Your task to perform on an android device: open a bookmark in the chrome app Image 0: 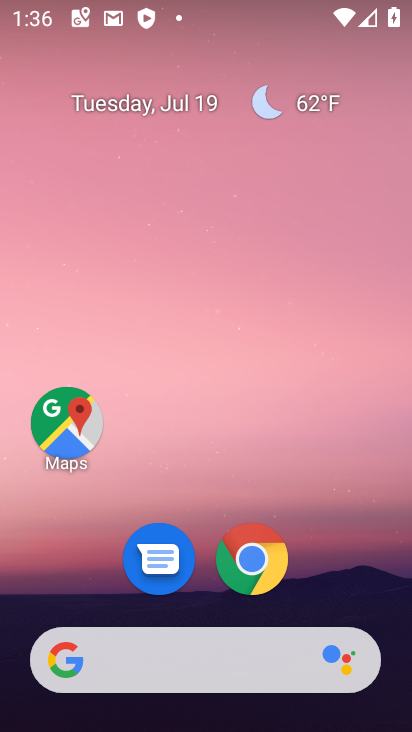
Step 0: drag from (276, 646) to (309, 142)
Your task to perform on an android device: open a bookmark in the chrome app Image 1: 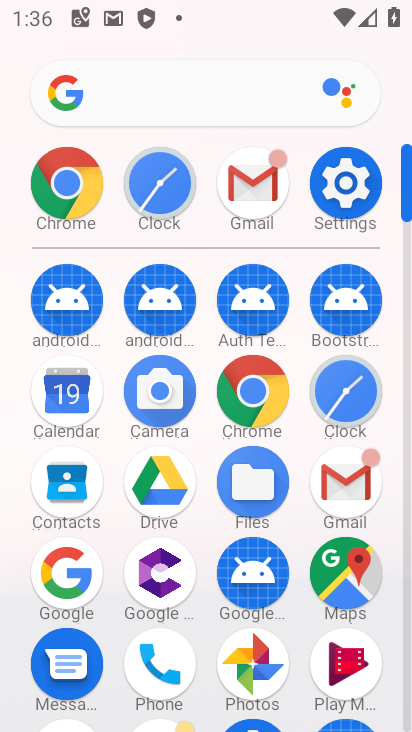
Step 1: click (272, 390)
Your task to perform on an android device: open a bookmark in the chrome app Image 2: 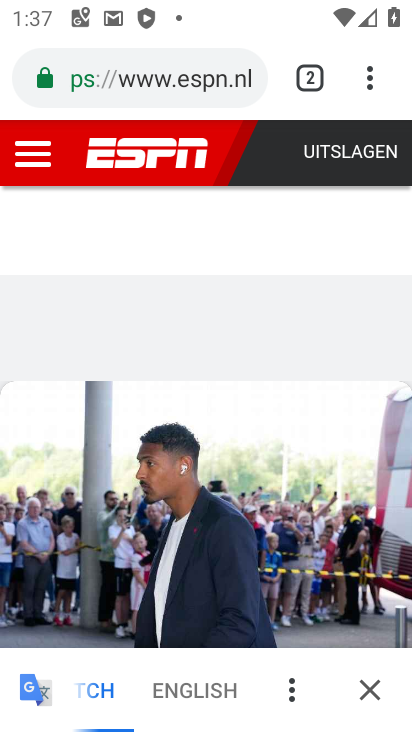
Step 2: click (364, 88)
Your task to perform on an android device: open a bookmark in the chrome app Image 3: 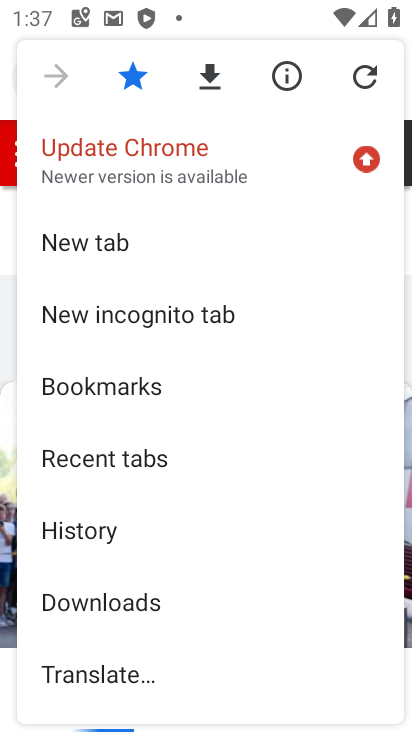
Step 3: click (127, 388)
Your task to perform on an android device: open a bookmark in the chrome app Image 4: 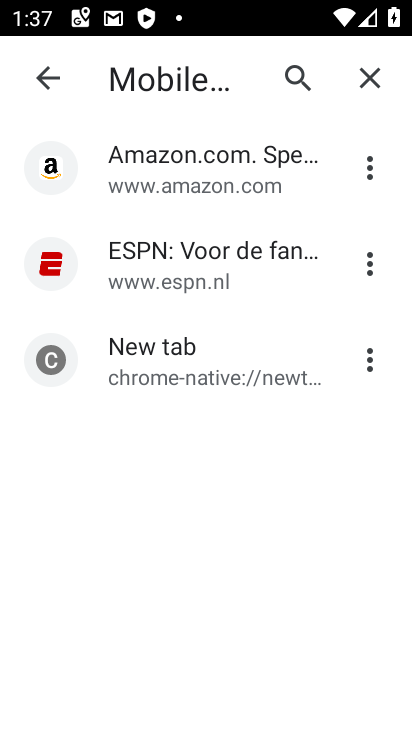
Step 4: click (218, 258)
Your task to perform on an android device: open a bookmark in the chrome app Image 5: 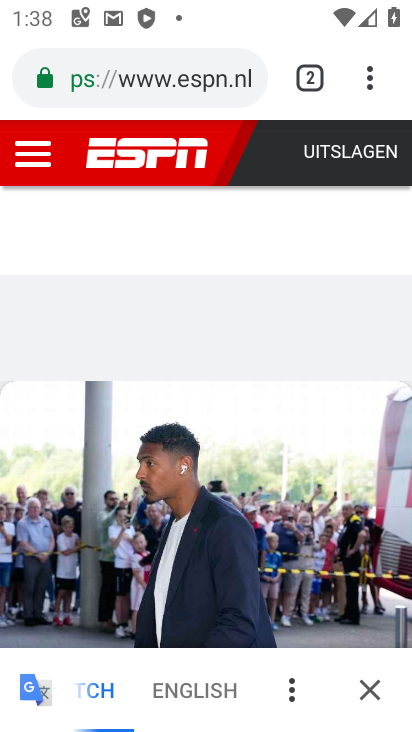
Step 5: task complete